Your task to perform on an android device: search for starred emails in the gmail app Image 0: 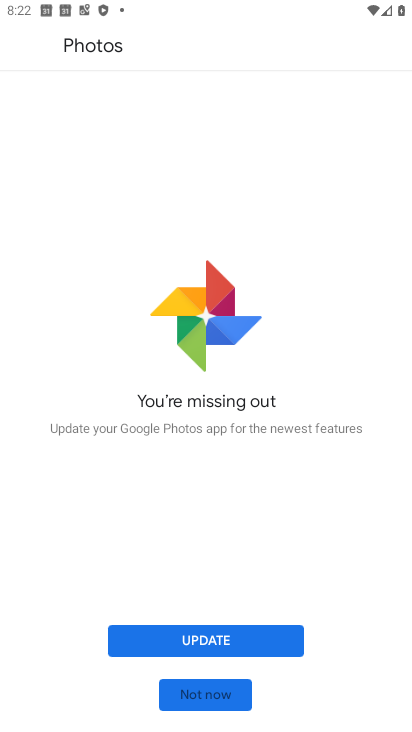
Step 0: press back button
Your task to perform on an android device: search for starred emails in the gmail app Image 1: 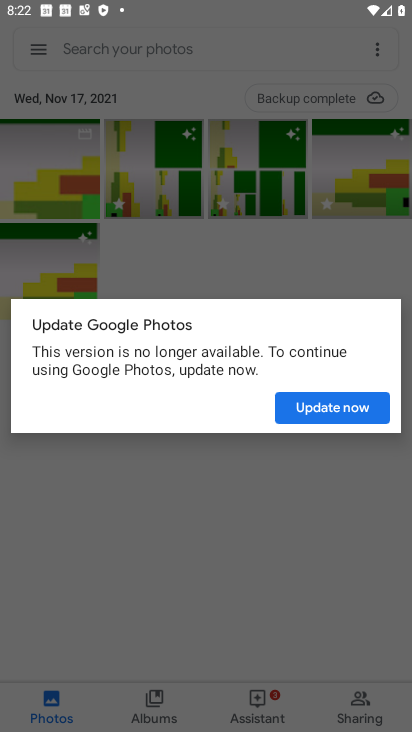
Step 1: press home button
Your task to perform on an android device: search for starred emails in the gmail app Image 2: 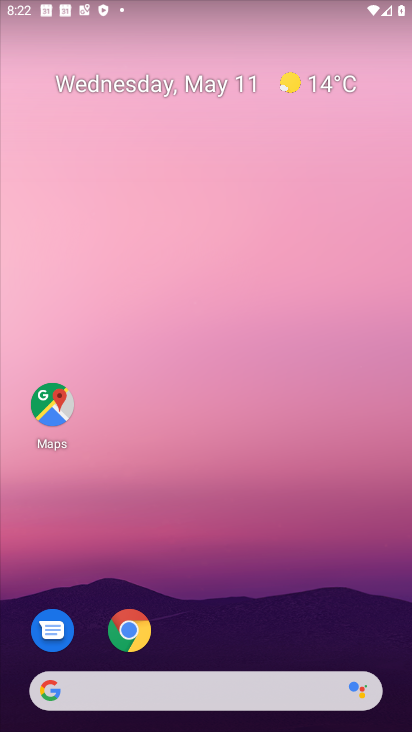
Step 2: drag from (215, 655) to (47, 106)
Your task to perform on an android device: search for starred emails in the gmail app Image 3: 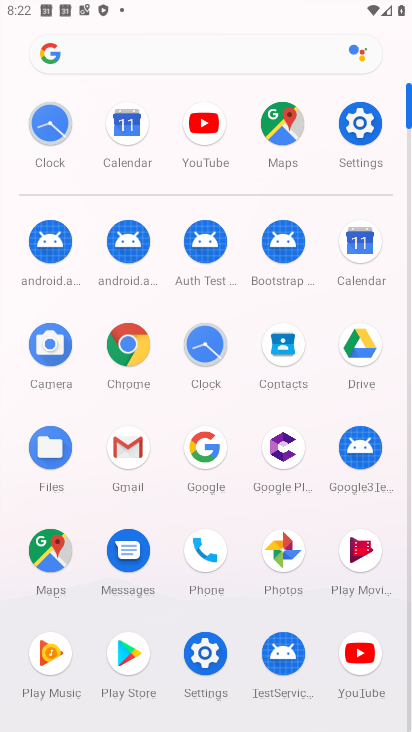
Step 3: click (124, 456)
Your task to perform on an android device: search for starred emails in the gmail app Image 4: 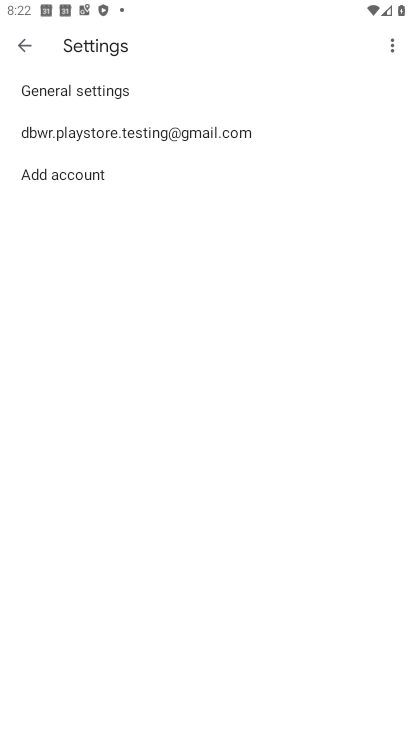
Step 4: click (30, 41)
Your task to perform on an android device: search for starred emails in the gmail app Image 5: 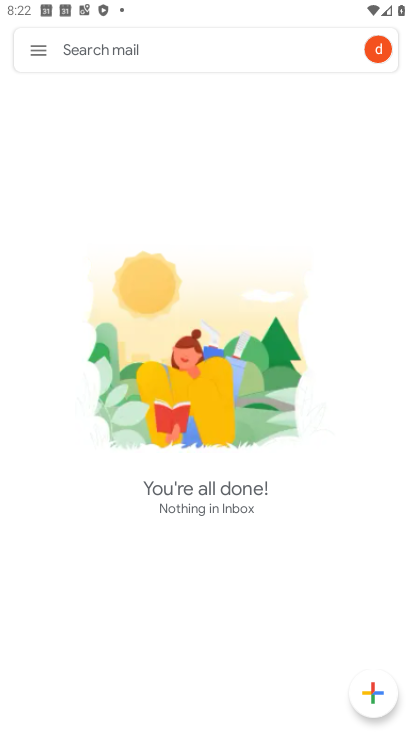
Step 5: click (30, 41)
Your task to perform on an android device: search for starred emails in the gmail app Image 6: 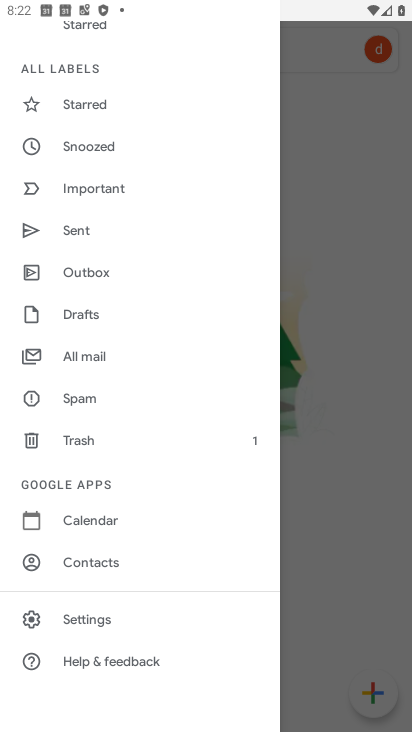
Step 6: click (76, 101)
Your task to perform on an android device: search for starred emails in the gmail app Image 7: 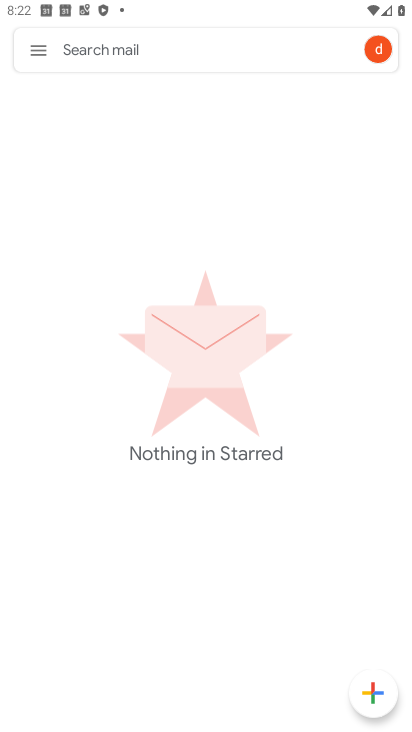
Step 7: task complete